Your task to perform on an android device: Is it going to rain today? Image 0: 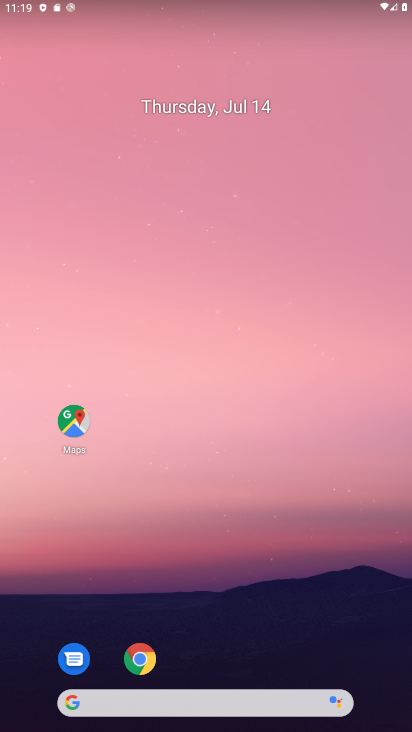
Step 0: drag from (239, 664) to (237, 225)
Your task to perform on an android device: Is it going to rain today? Image 1: 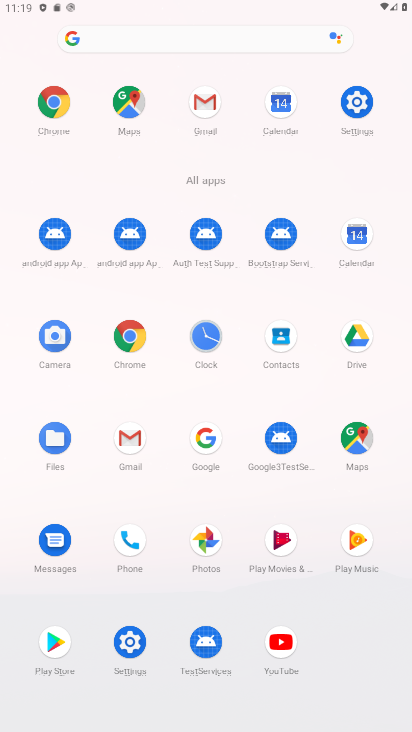
Step 1: click (54, 97)
Your task to perform on an android device: Is it going to rain today? Image 2: 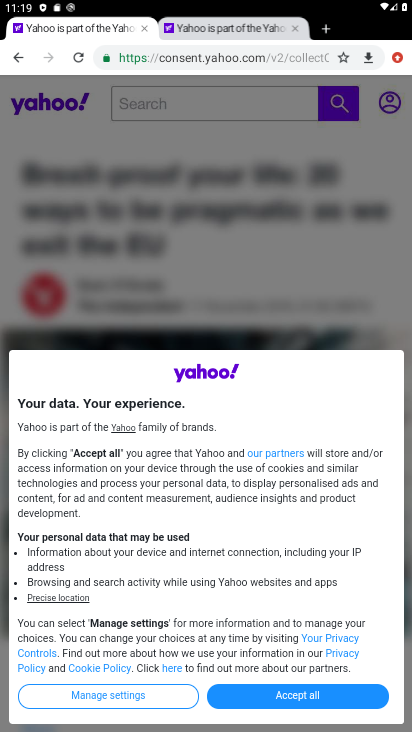
Step 2: click (333, 25)
Your task to perform on an android device: Is it going to rain today? Image 3: 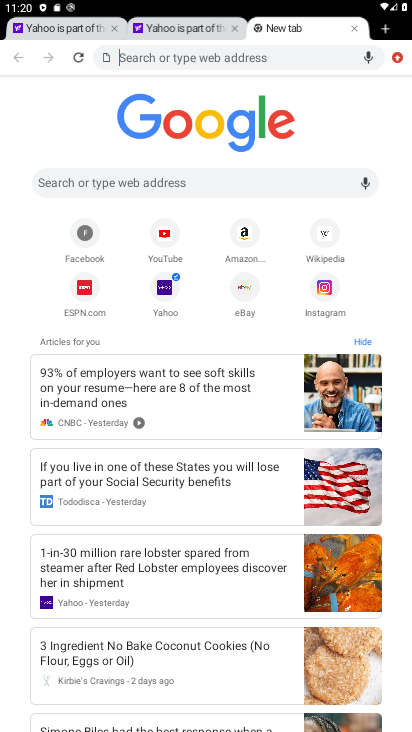
Step 3: click (142, 175)
Your task to perform on an android device: Is it going to rain today? Image 4: 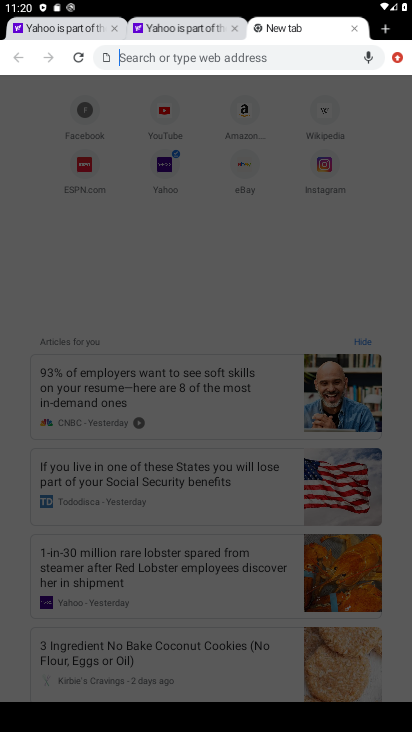
Step 4: click (229, 45)
Your task to perform on an android device: Is it going to rain today? Image 5: 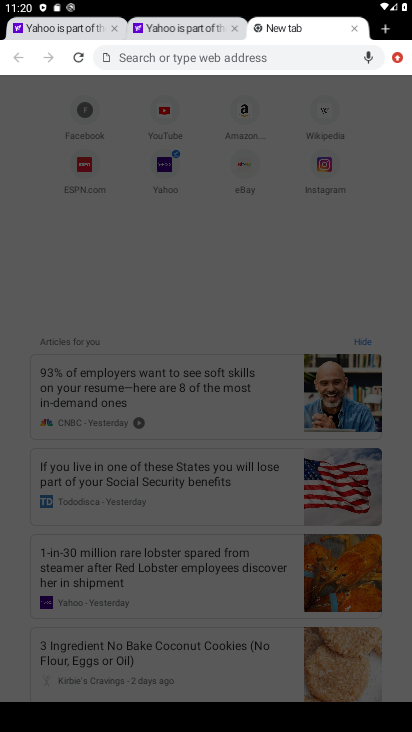
Step 5: type "Is it going to rain today "
Your task to perform on an android device: Is it going to rain today? Image 6: 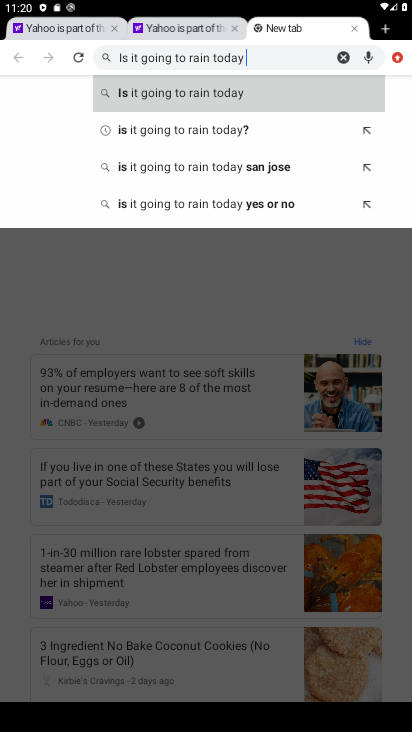
Step 6: click (261, 97)
Your task to perform on an android device: Is it going to rain today? Image 7: 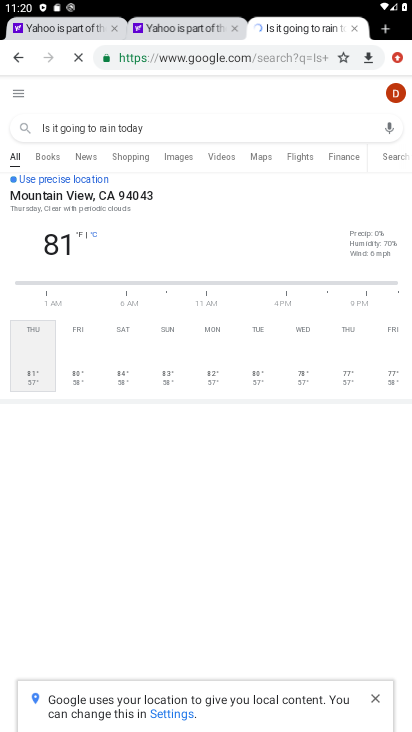
Step 7: task complete